Your task to perform on an android device: install app "Reddit" Image 0: 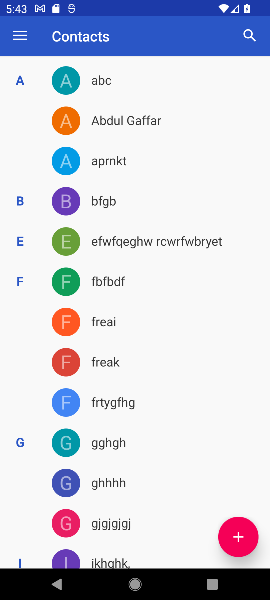
Step 0: press home button
Your task to perform on an android device: install app "Reddit" Image 1: 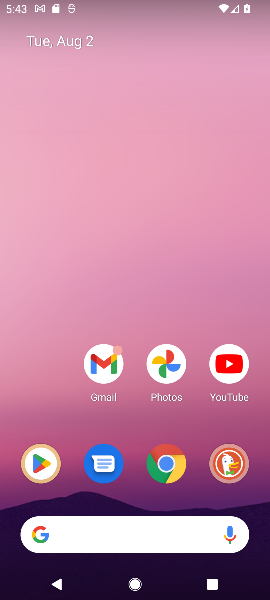
Step 1: click (44, 453)
Your task to perform on an android device: install app "Reddit" Image 2: 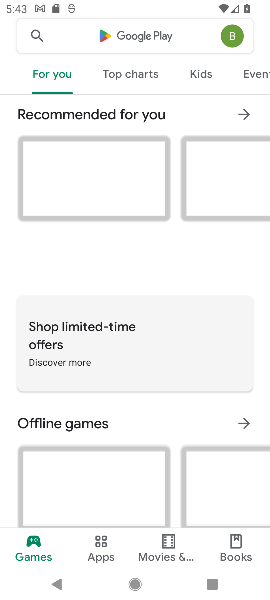
Step 2: click (171, 36)
Your task to perform on an android device: install app "Reddit" Image 3: 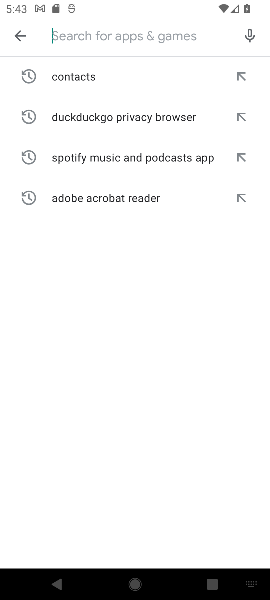
Step 3: type "Reddit"
Your task to perform on an android device: install app "Reddit" Image 4: 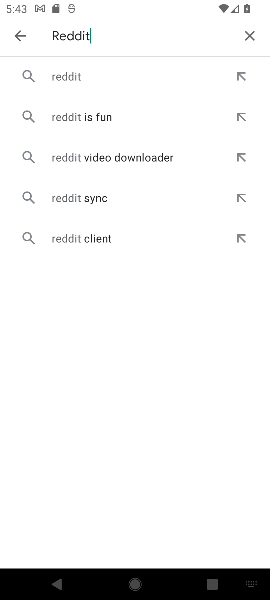
Step 4: click (91, 80)
Your task to perform on an android device: install app "Reddit" Image 5: 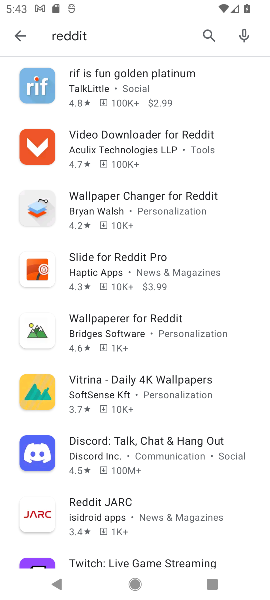
Step 5: task complete